Your task to perform on an android device: What is the news today? Image 0: 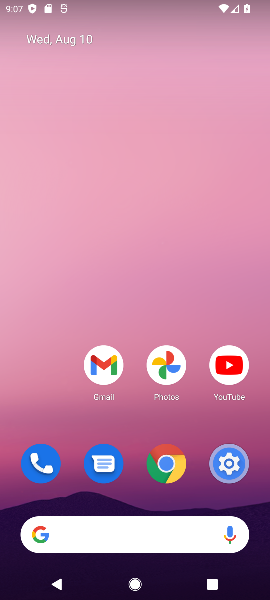
Step 0: click (76, 528)
Your task to perform on an android device: What is the news today? Image 1: 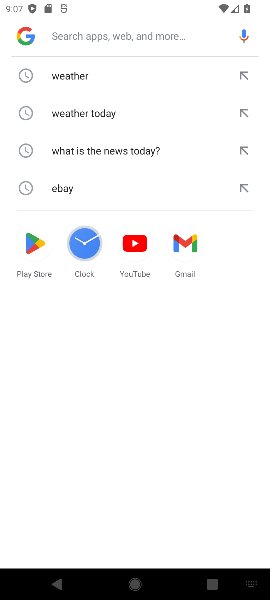
Step 1: click (94, 146)
Your task to perform on an android device: What is the news today? Image 2: 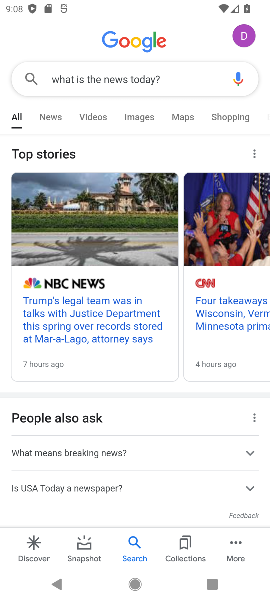
Step 2: task complete